Your task to perform on an android device: Search for Italian restaurants on Maps Image 0: 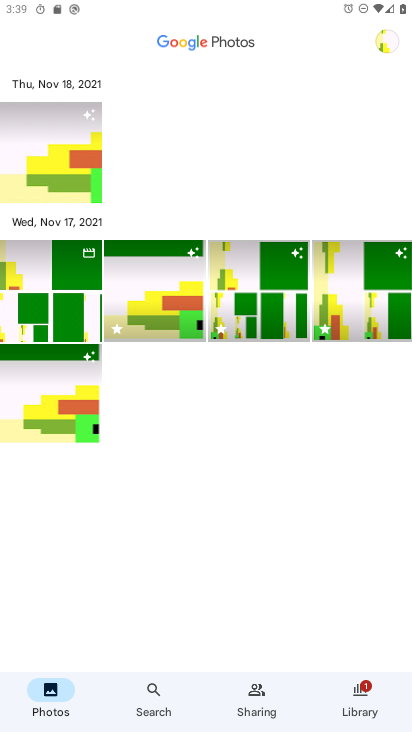
Step 0: press home button
Your task to perform on an android device: Search for Italian restaurants on Maps Image 1: 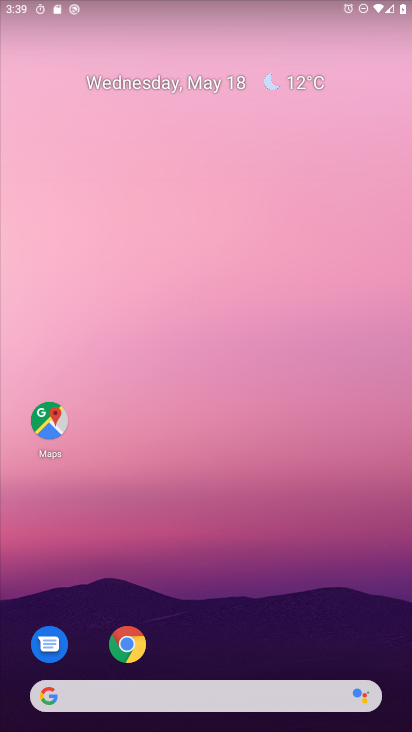
Step 1: click (39, 412)
Your task to perform on an android device: Search for Italian restaurants on Maps Image 2: 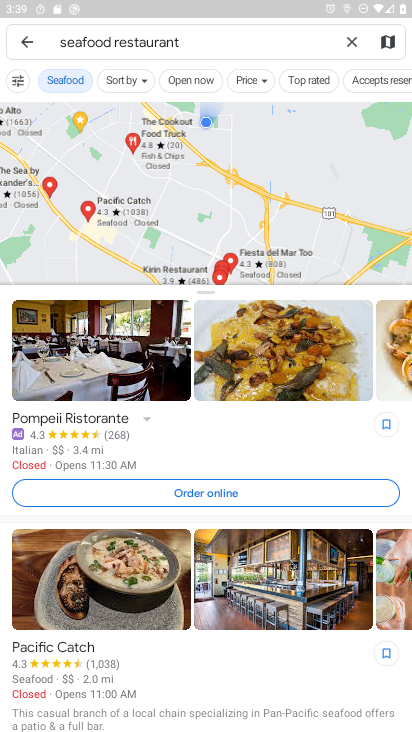
Step 2: click (350, 38)
Your task to perform on an android device: Search for Italian restaurants on Maps Image 3: 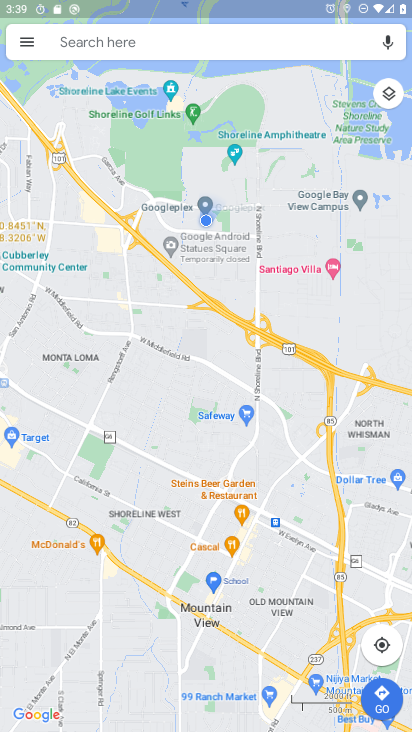
Step 3: click (89, 37)
Your task to perform on an android device: Search for Italian restaurants on Maps Image 4: 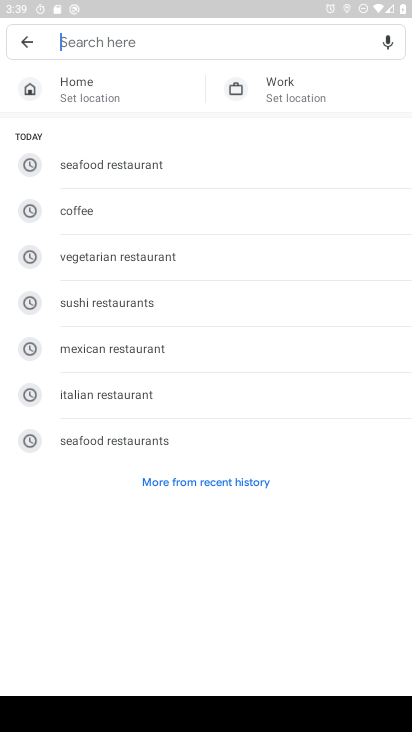
Step 4: type " Italian restaurants"
Your task to perform on an android device: Search for Italian restaurants on Maps Image 5: 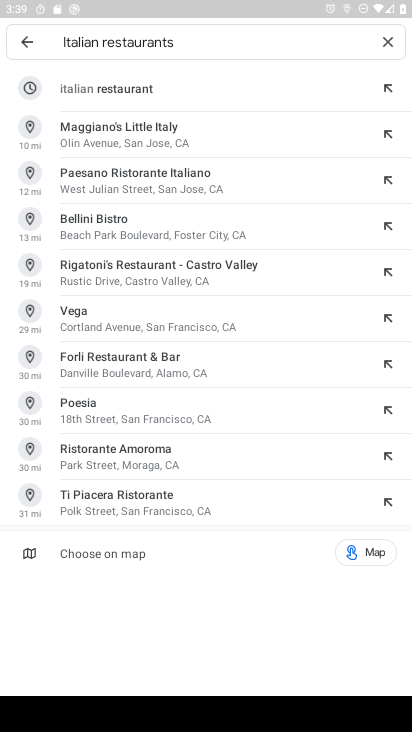
Step 5: click (136, 83)
Your task to perform on an android device: Search for Italian restaurants on Maps Image 6: 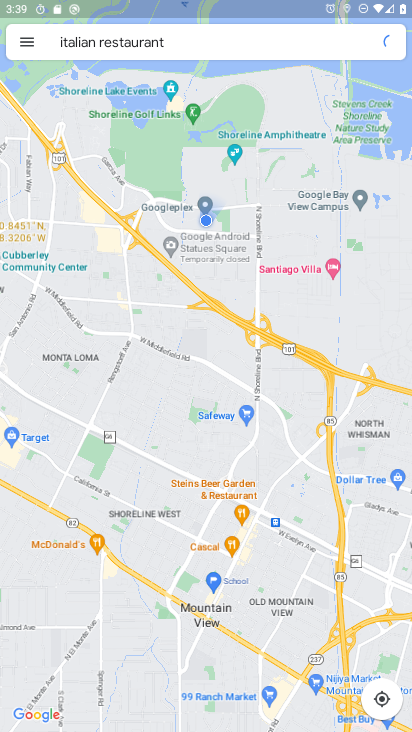
Step 6: task complete